Your task to perform on an android device: open a new tab in the chrome app Image 0: 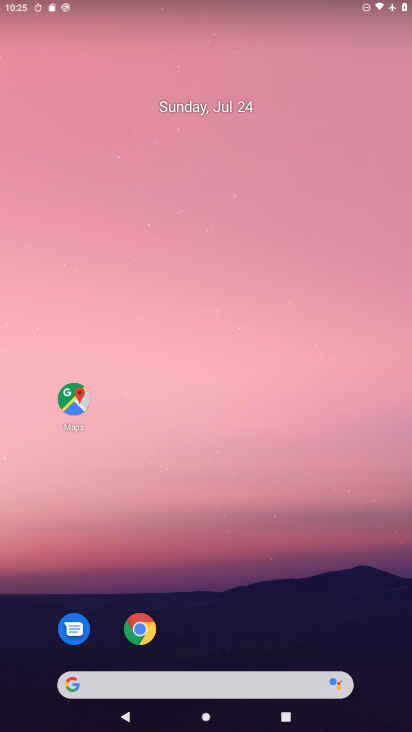
Step 0: drag from (218, 645) to (297, 227)
Your task to perform on an android device: open a new tab in the chrome app Image 1: 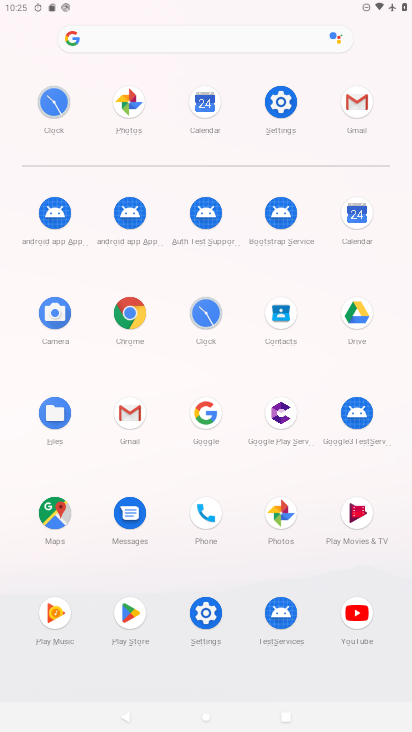
Step 1: click (130, 314)
Your task to perform on an android device: open a new tab in the chrome app Image 2: 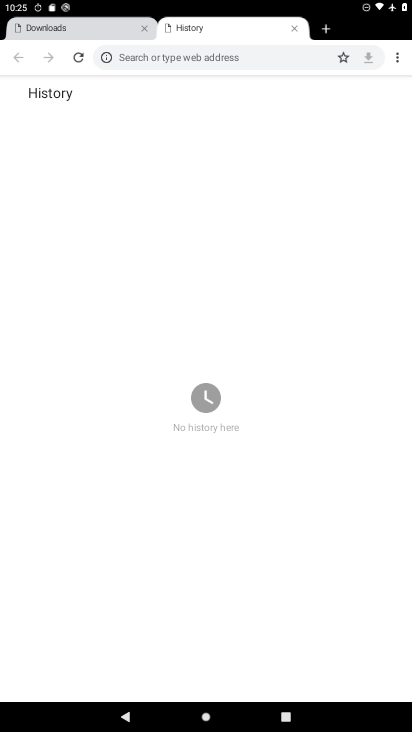
Step 2: click (325, 20)
Your task to perform on an android device: open a new tab in the chrome app Image 3: 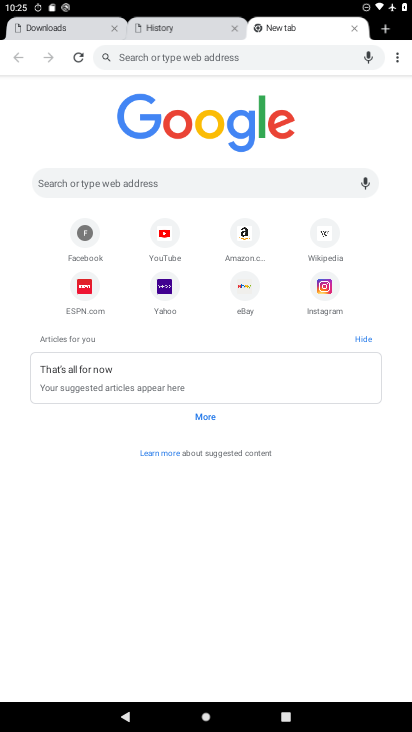
Step 3: task complete